Your task to perform on an android device: turn off translation in the chrome app Image 0: 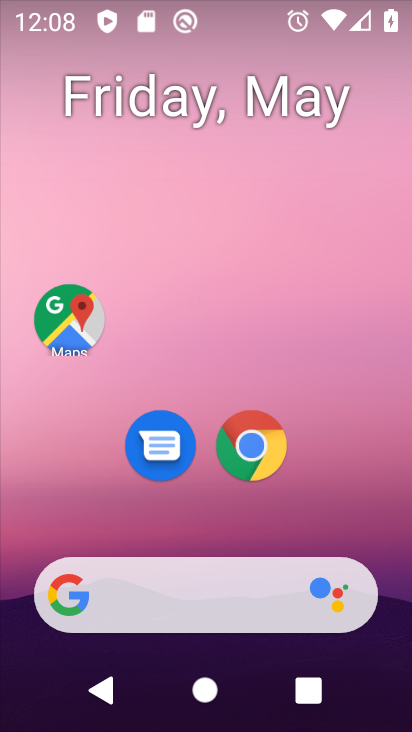
Step 0: click (254, 446)
Your task to perform on an android device: turn off translation in the chrome app Image 1: 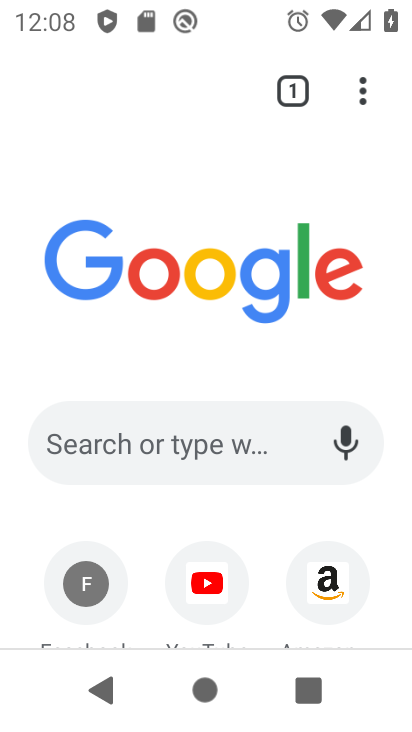
Step 1: drag from (364, 90) to (121, 491)
Your task to perform on an android device: turn off translation in the chrome app Image 2: 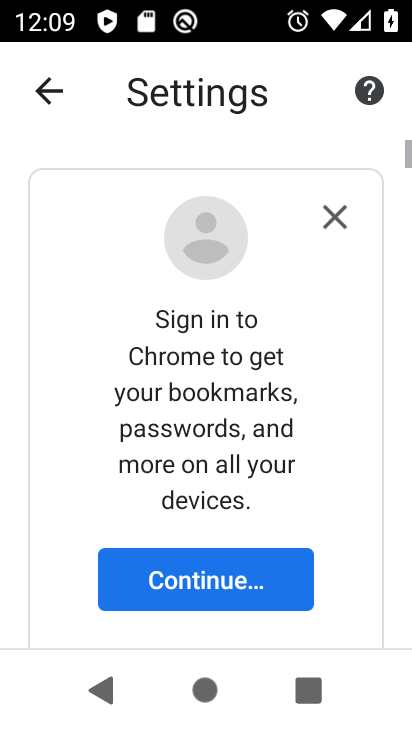
Step 2: drag from (329, 607) to (288, 190)
Your task to perform on an android device: turn off translation in the chrome app Image 3: 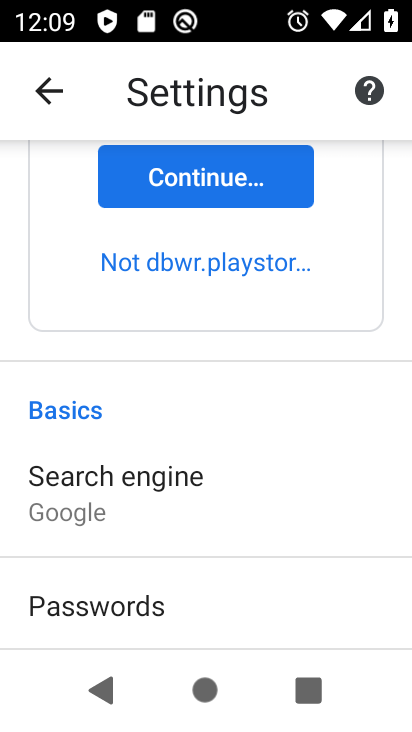
Step 3: drag from (247, 521) to (238, 242)
Your task to perform on an android device: turn off translation in the chrome app Image 4: 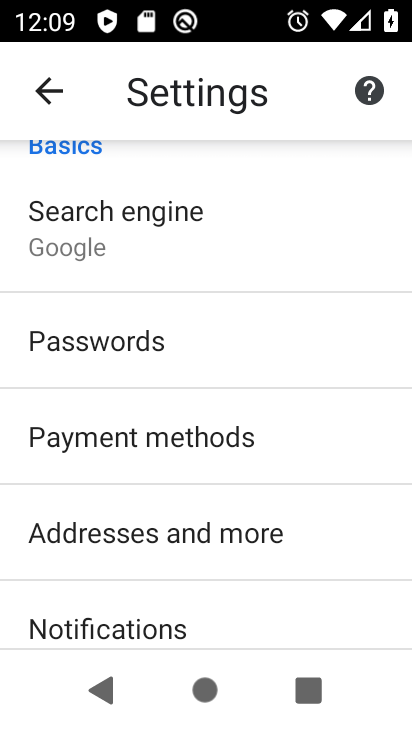
Step 4: drag from (274, 509) to (253, 158)
Your task to perform on an android device: turn off translation in the chrome app Image 5: 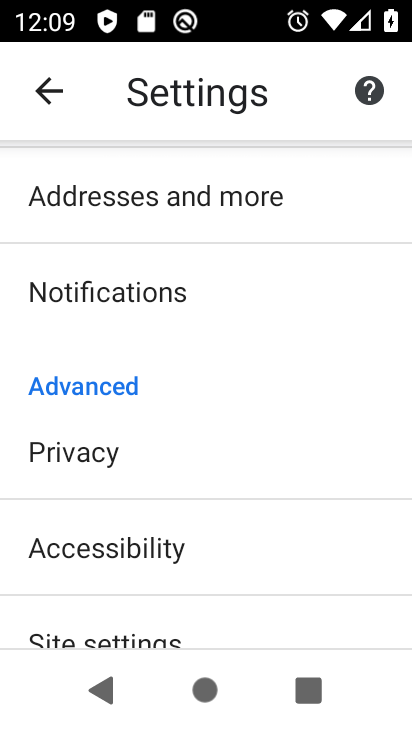
Step 5: drag from (199, 496) to (197, 181)
Your task to perform on an android device: turn off translation in the chrome app Image 6: 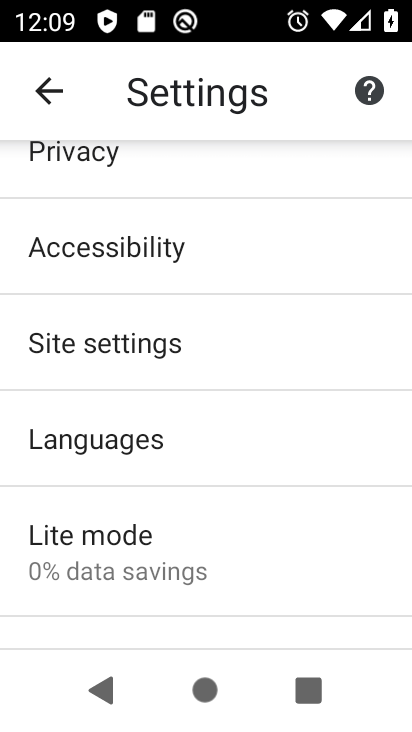
Step 6: click (77, 439)
Your task to perform on an android device: turn off translation in the chrome app Image 7: 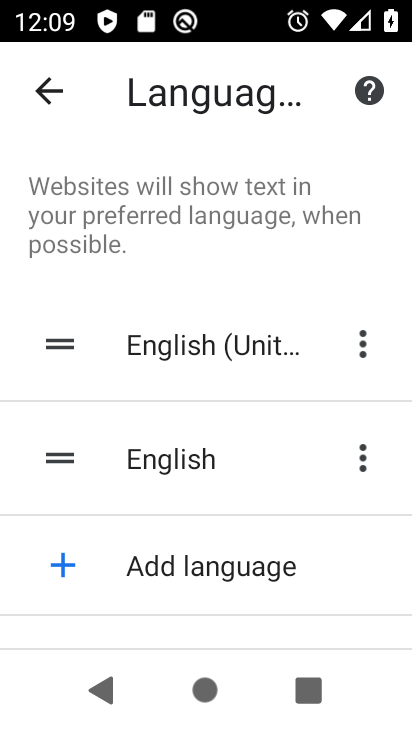
Step 7: drag from (211, 567) to (229, 254)
Your task to perform on an android device: turn off translation in the chrome app Image 8: 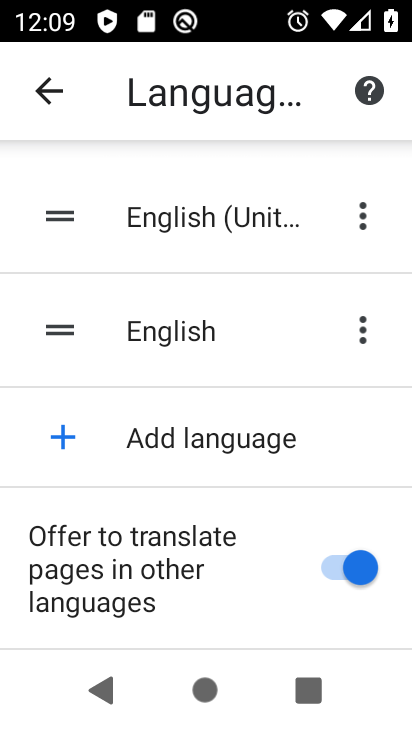
Step 8: click (346, 580)
Your task to perform on an android device: turn off translation in the chrome app Image 9: 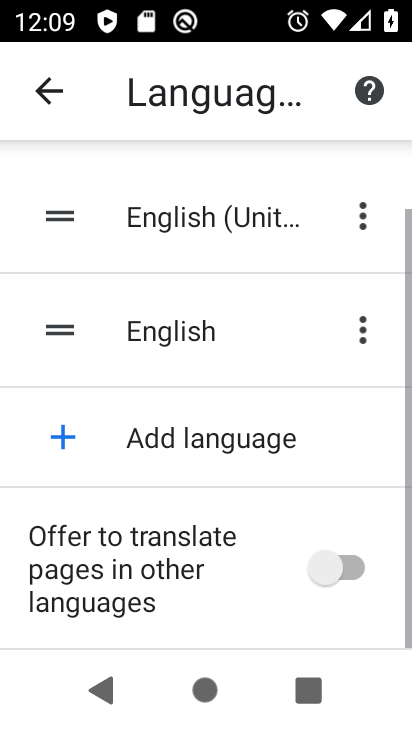
Step 9: task complete